Your task to perform on an android device: What's the weather? Image 0: 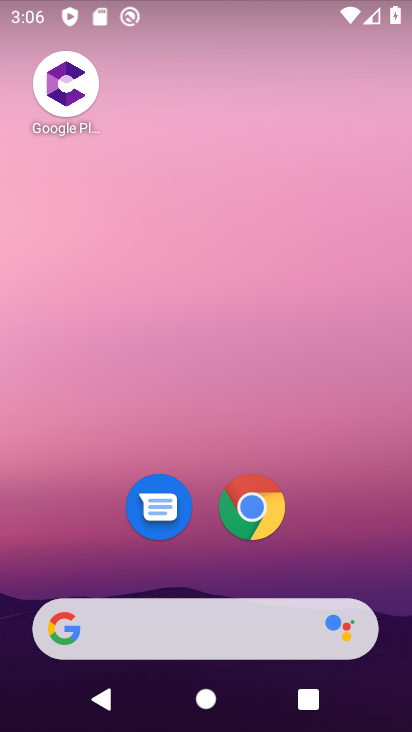
Step 0: drag from (385, 435) to (412, 174)
Your task to perform on an android device: What's the weather? Image 1: 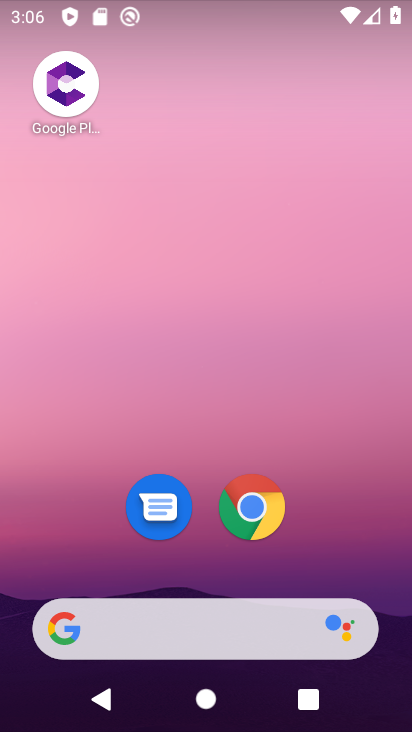
Step 1: drag from (358, 508) to (397, 9)
Your task to perform on an android device: What's the weather? Image 2: 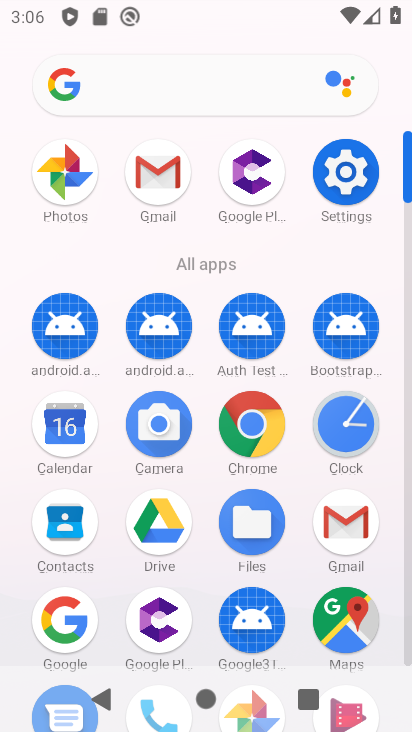
Step 2: click (59, 614)
Your task to perform on an android device: What's the weather? Image 3: 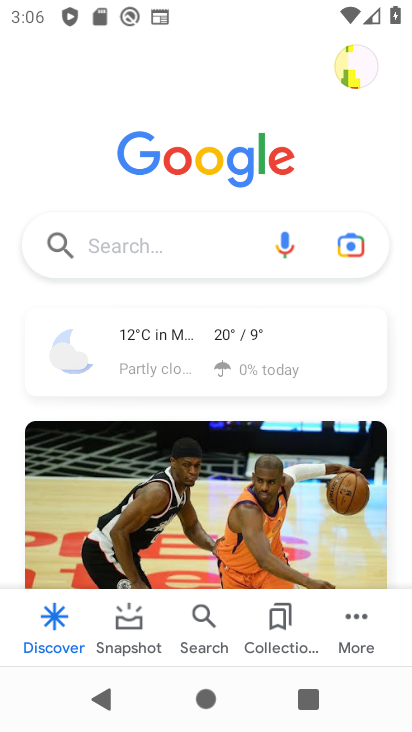
Step 3: click (200, 347)
Your task to perform on an android device: What's the weather? Image 4: 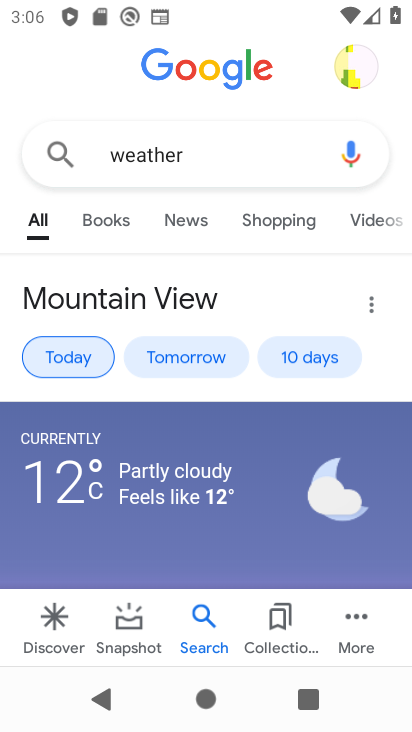
Step 4: task complete